Your task to perform on an android device: Open calendar and show me the second week of next month Image 0: 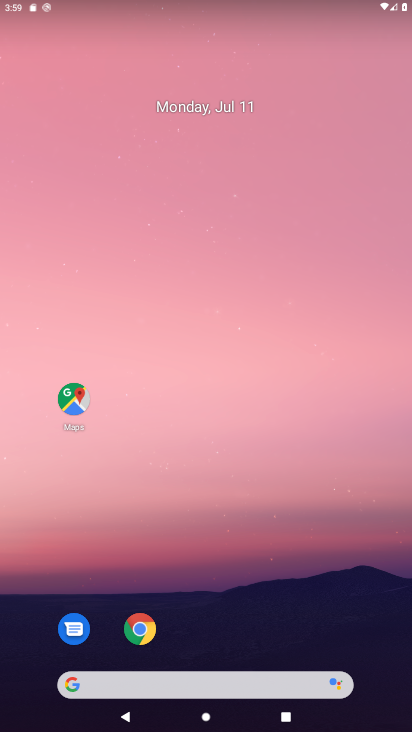
Step 0: drag from (377, 667) to (384, 99)
Your task to perform on an android device: Open calendar and show me the second week of next month Image 1: 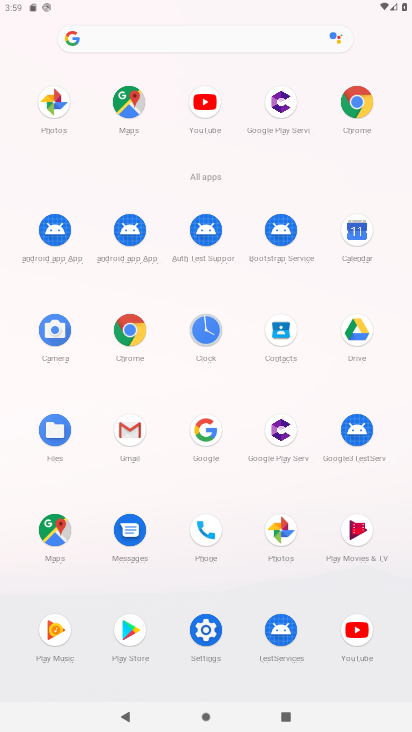
Step 1: click (351, 231)
Your task to perform on an android device: Open calendar and show me the second week of next month Image 2: 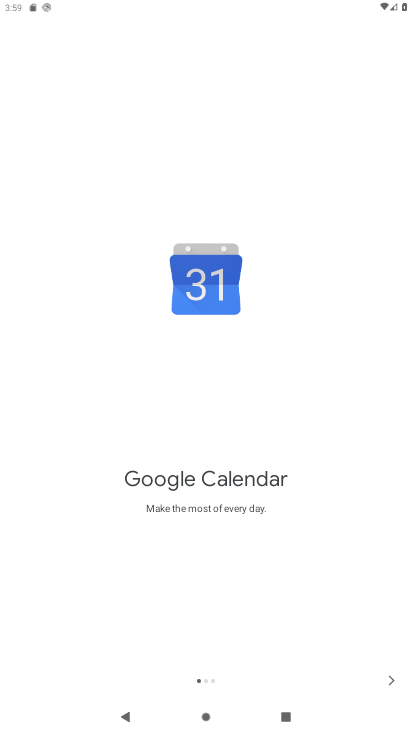
Step 2: click (385, 679)
Your task to perform on an android device: Open calendar and show me the second week of next month Image 3: 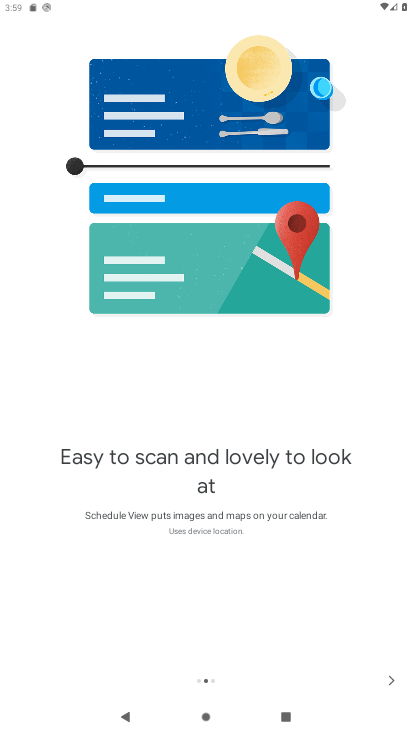
Step 3: click (385, 679)
Your task to perform on an android device: Open calendar and show me the second week of next month Image 4: 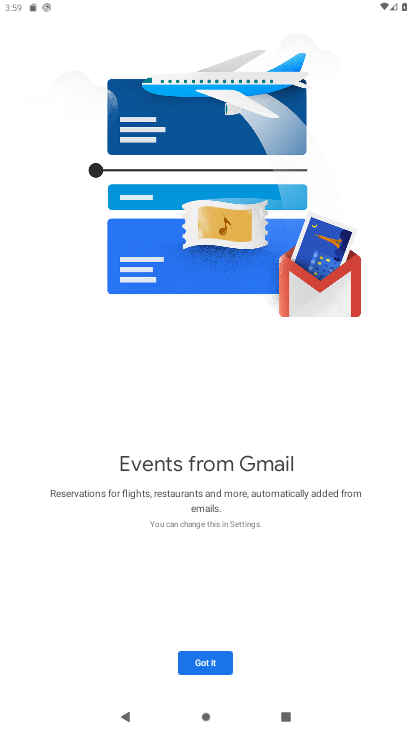
Step 4: click (195, 669)
Your task to perform on an android device: Open calendar and show me the second week of next month Image 5: 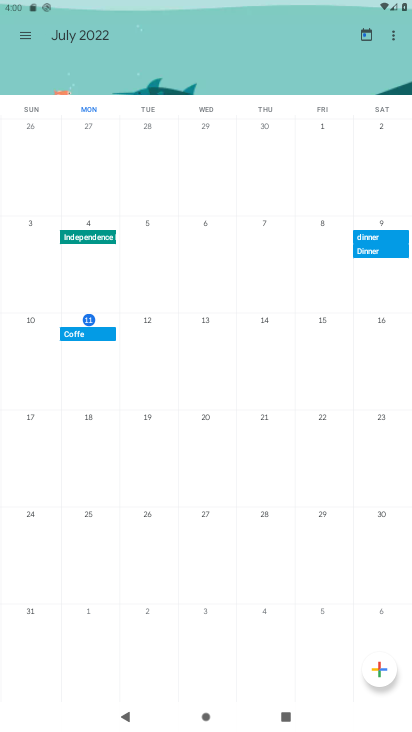
Step 5: click (78, 32)
Your task to perform on an android device: Open calendar and show me the second week of next month Image 6: 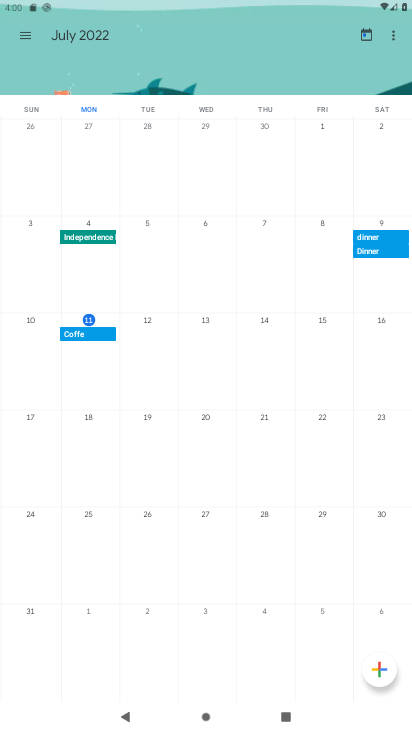
Step 6: drag from (403, 205) to (75, 205)
Your task to perform on an android device: Open calendar and show me the second week of next month Image 7: 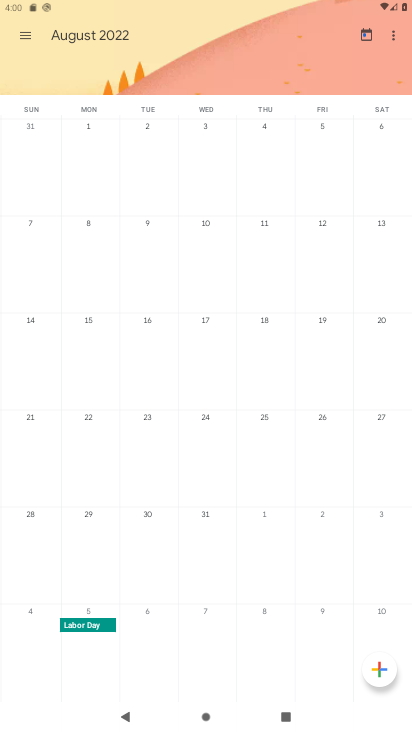
Step 7: click (263, 223)
Your task to perform on an android device: Open calendar and show me the second week of next month Image 8: 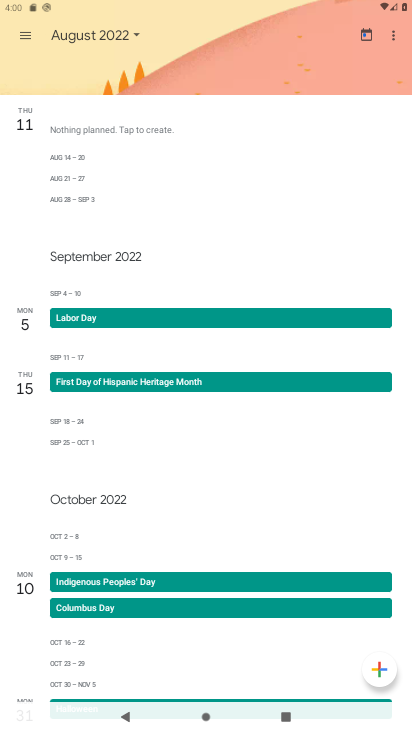
Step 8: task complete